Your task to perform on an android device: turn on priority inbox in the gmail app Image 0: 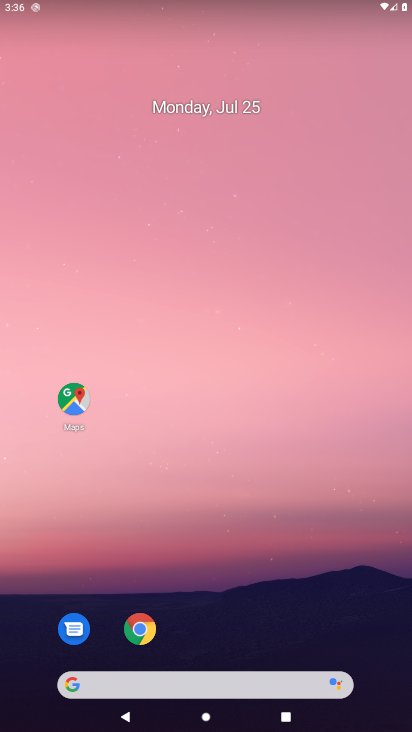
Step 0: drag from (64, 674) to (313, 71)
Your task to perform on an android device: turn on priority inbox in the gmail app Image 1: 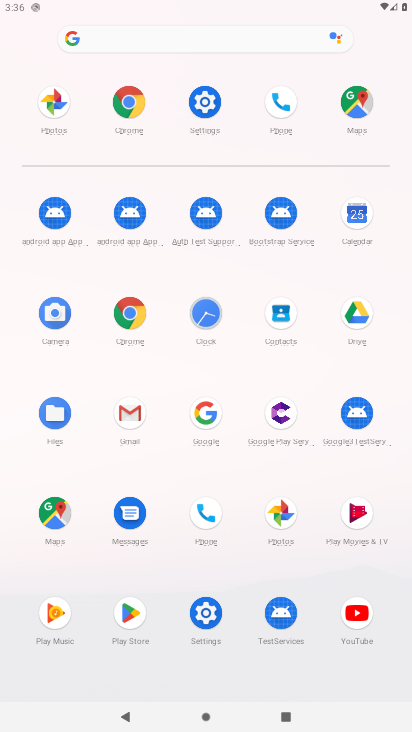
Step 1: click (140, 416)
Your task to perform on an android device: turn on priority inbox in the gmail app Image 2: 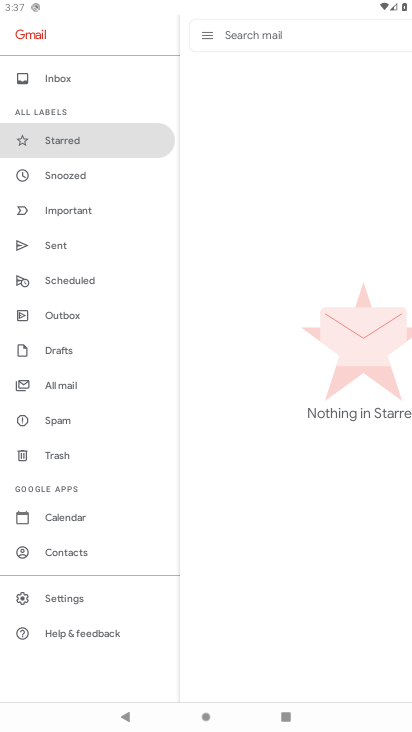
Step 2: click (67, 599)
Your task to perform on an android device: turn on priority inbox in the gmail app Image 3: 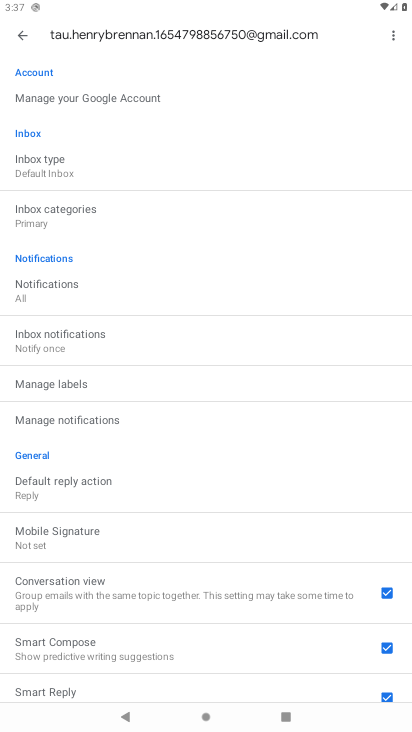
Step 3: click (52, 162)
Your task to perform on an android device: turn on priority inbox in the gmail app Image 4: 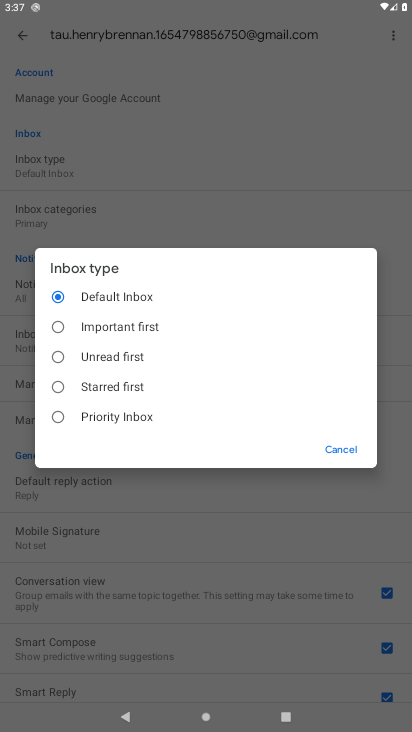
Step 4: click (67, 421)
Your task to perform on an android device: turn on priority inbox in the gmail app Image 5: 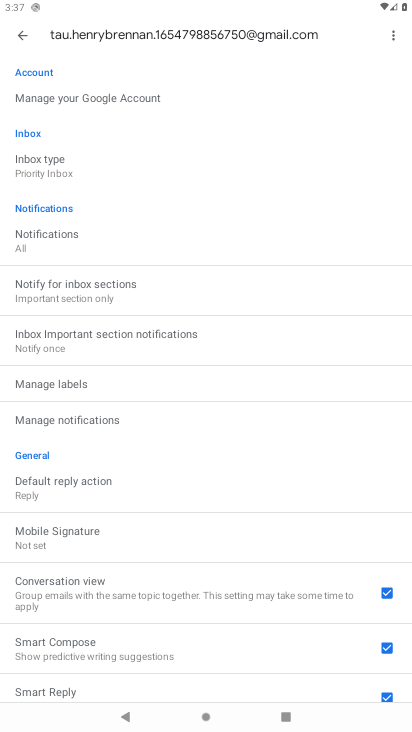
Step 5: task complete